Your task to perform on an android device: turn on location history Image 0: 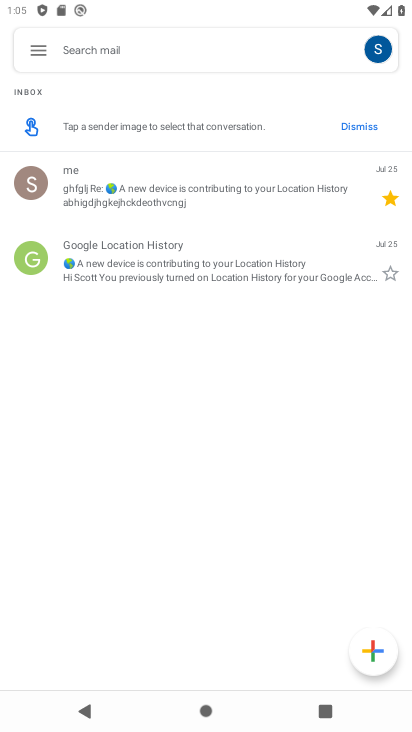
Step 0: press home button
Your task to perform on an android device: turn on location history Image 1: 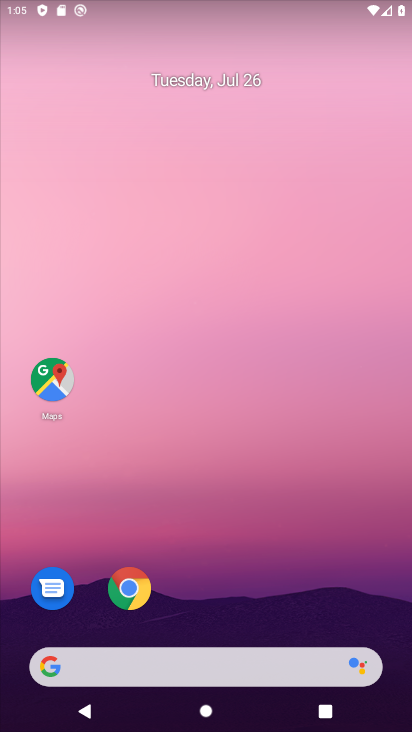
Step 1: drag from (302, 547) to (288, 15)
Your task to perform on an android device: turn on location history Image 2: 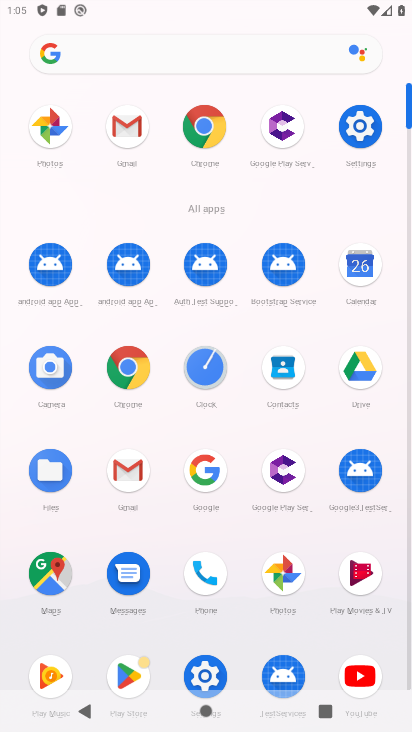
Step 2: click (371, 123)
Your task to perform on an android device: turn on location history Image 3: 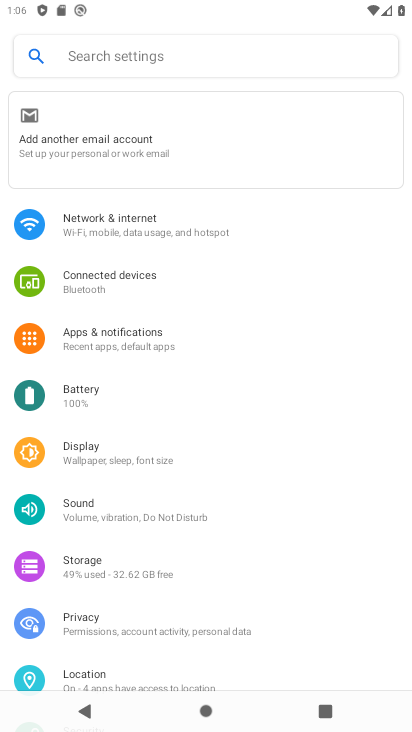
Step 3: click (110, 682)
Your task to perform on an android device: turn on location history Image 4: 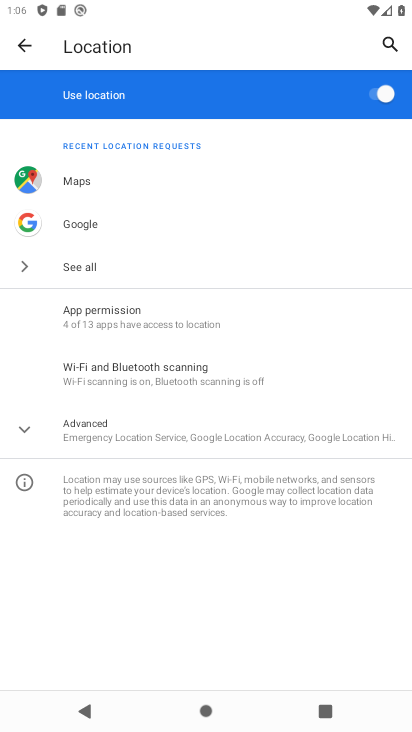
Step 4: click (122, 423)
Your task to perform on an android device: turn on location history Image 5: 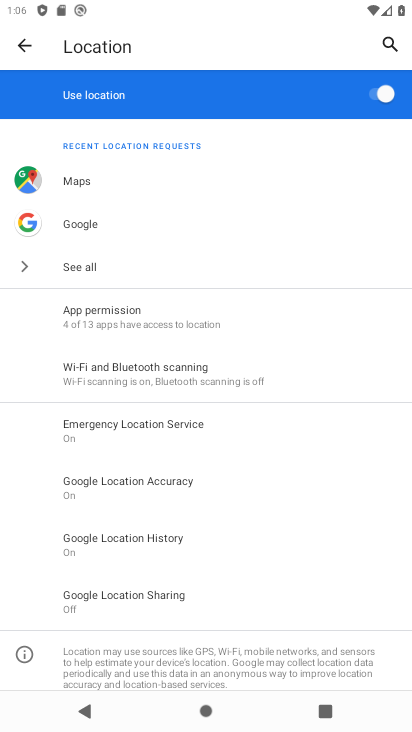
Step 5: click (159, 541)
Your task to perform on an android device: turn on location history Image 6: 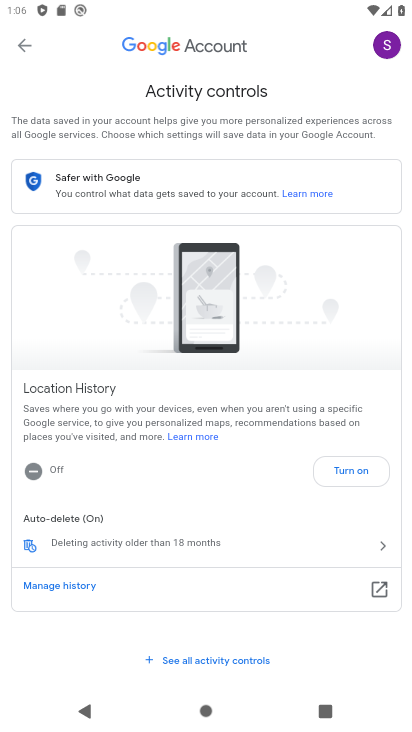
Step 6: click (353, 465)
Your task to perform on an android device: turn on location history Image 7: 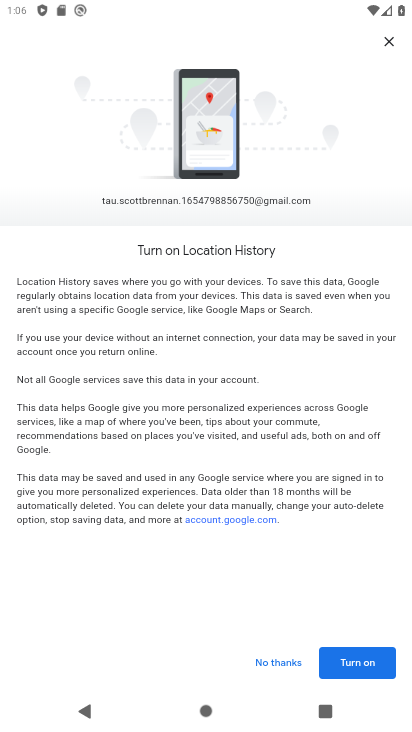
Step 7: click (364, 674)
Your task to perform on an android device: turn on location history Image 8: 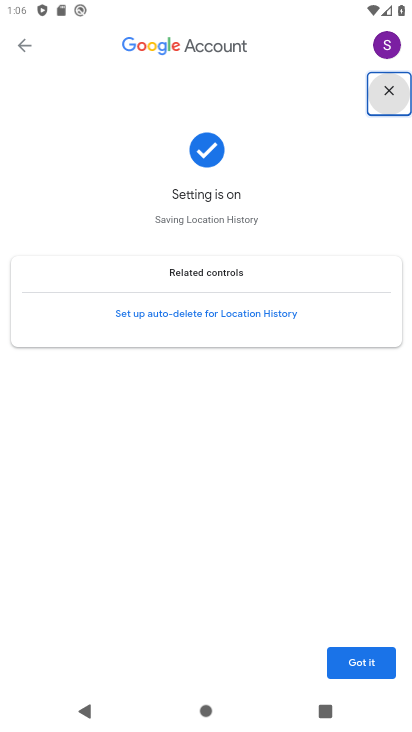
Step 8: click (381, 654)
Your task to perform on an android device: turn on location history Image 9: 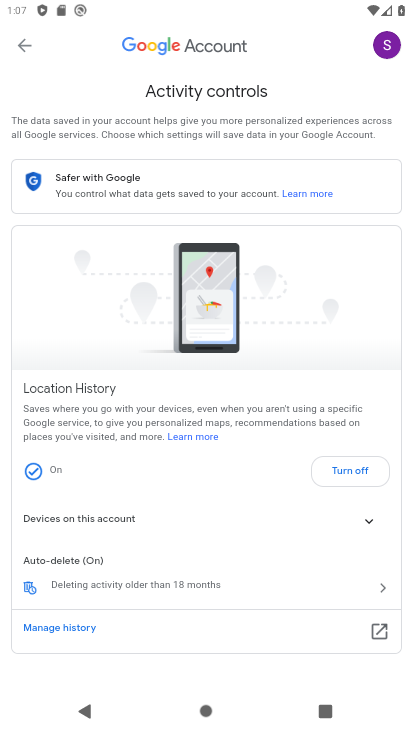
Step 9: task complete